Your task to perform on an android device: Open Reddit.com Image 0: 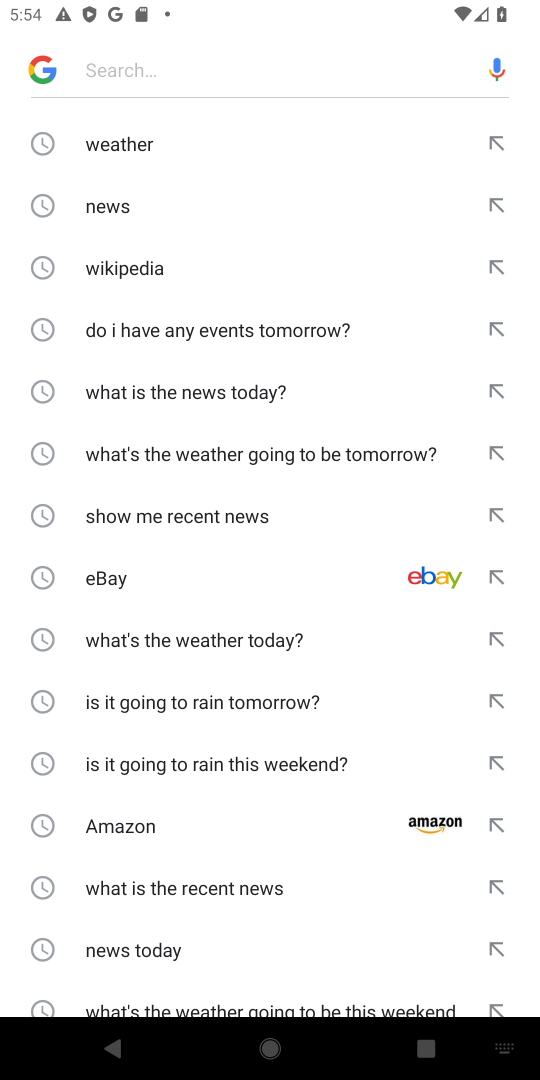
Step 0: press home button
Your task to perform on an android device: Open Reddit.com Image 1: 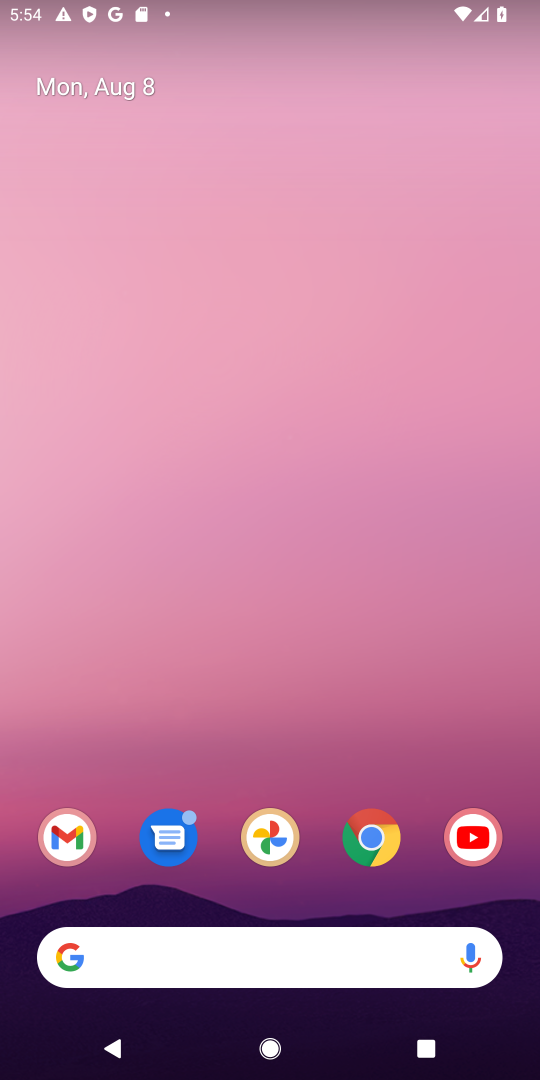
Step 1: drag from (332, 883) to (392, 54)
Your task to perform on an android device: Open Reddit.com Image 2: 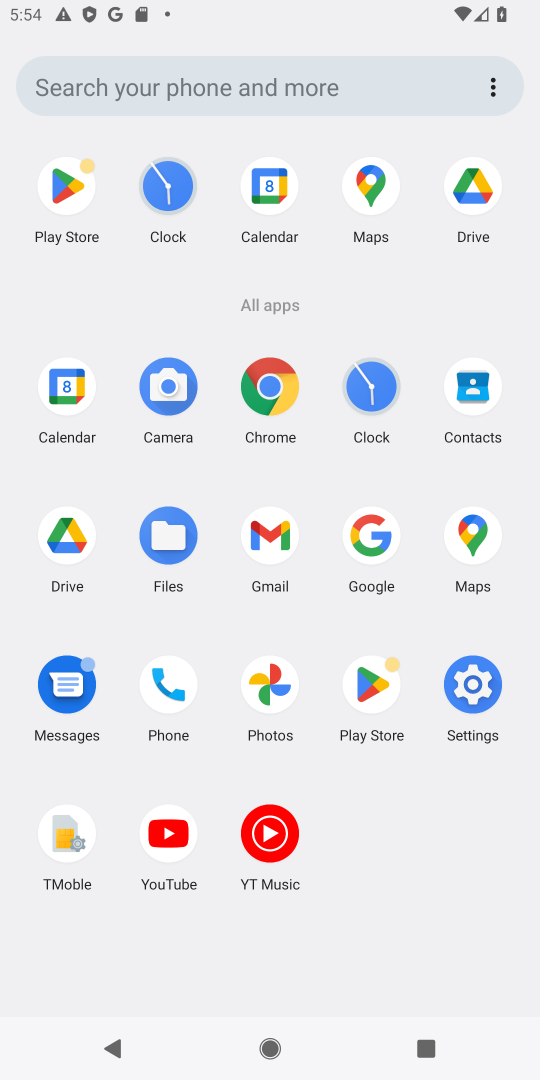
Step 2: click (281, 410)
Your task to perform on an android device: Open Reddit.com Image 3: 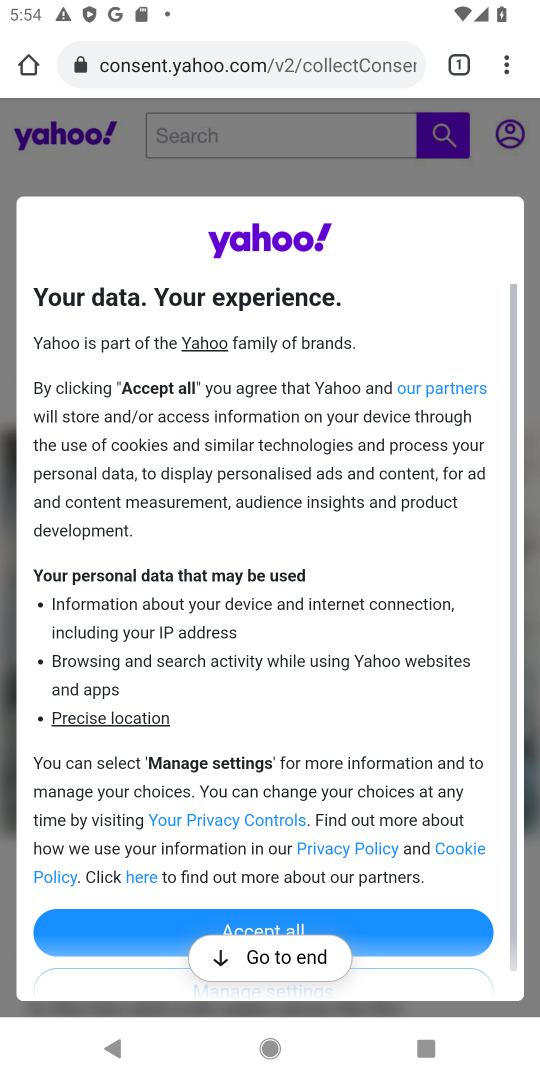
Step 3: click (338, 92)
Your task to perform on an android device: Open Reddit.com Image 4: 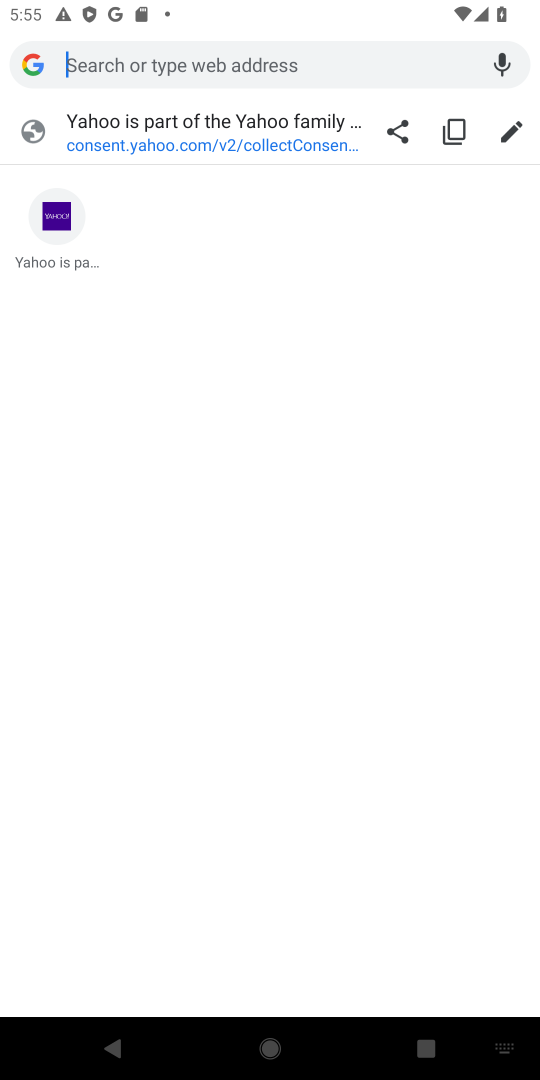
Step 4: type "Reddit.com"
Your task to perform on an android device: Open Reddit.com Image 5: 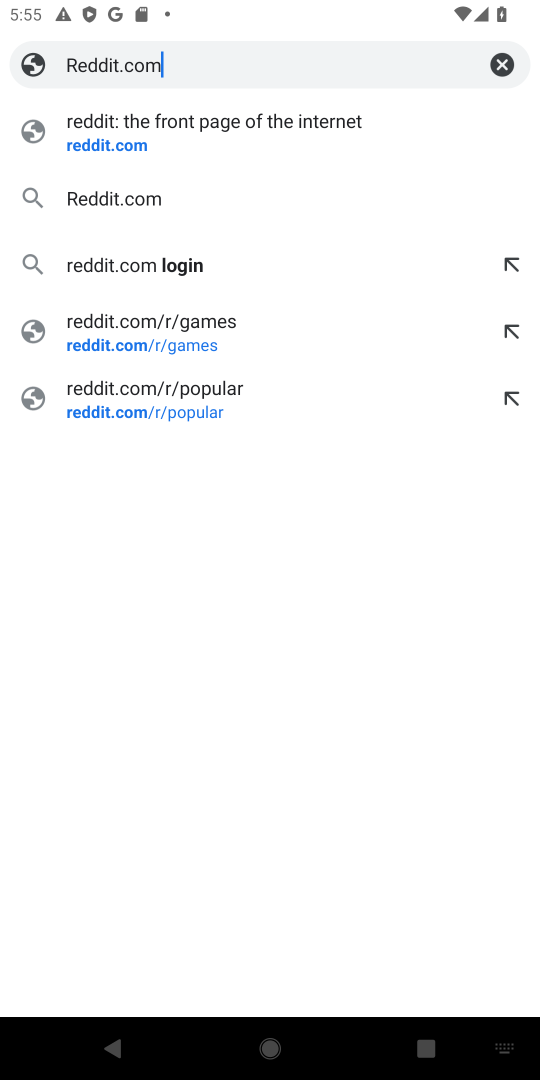
Step 5: press enter
Your task to perform on an android device: Open Reddit.com Image 6: 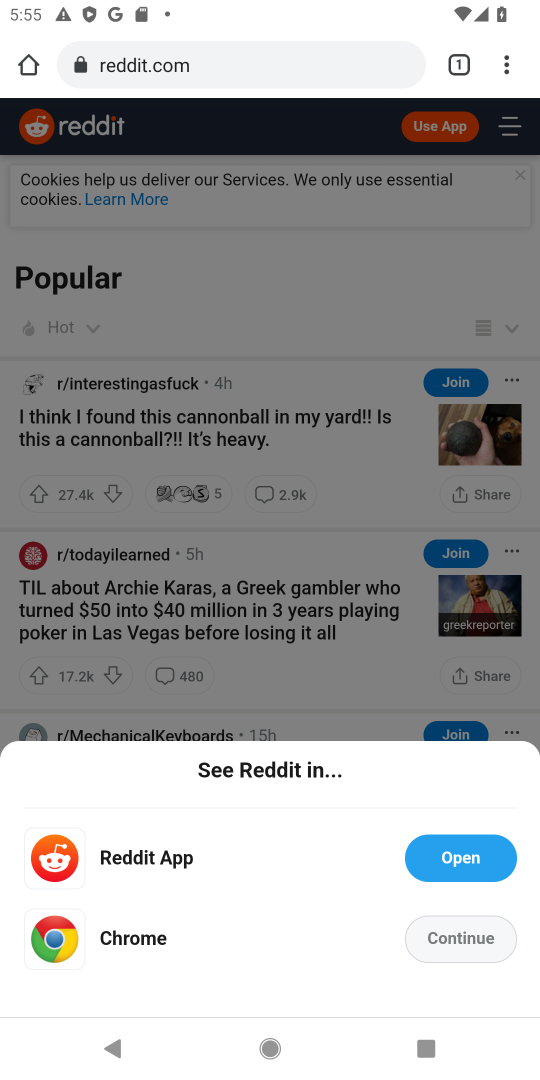
Step 6: task complete